Your task to perform on an android device: Find coffee shops on Maps Image 0: 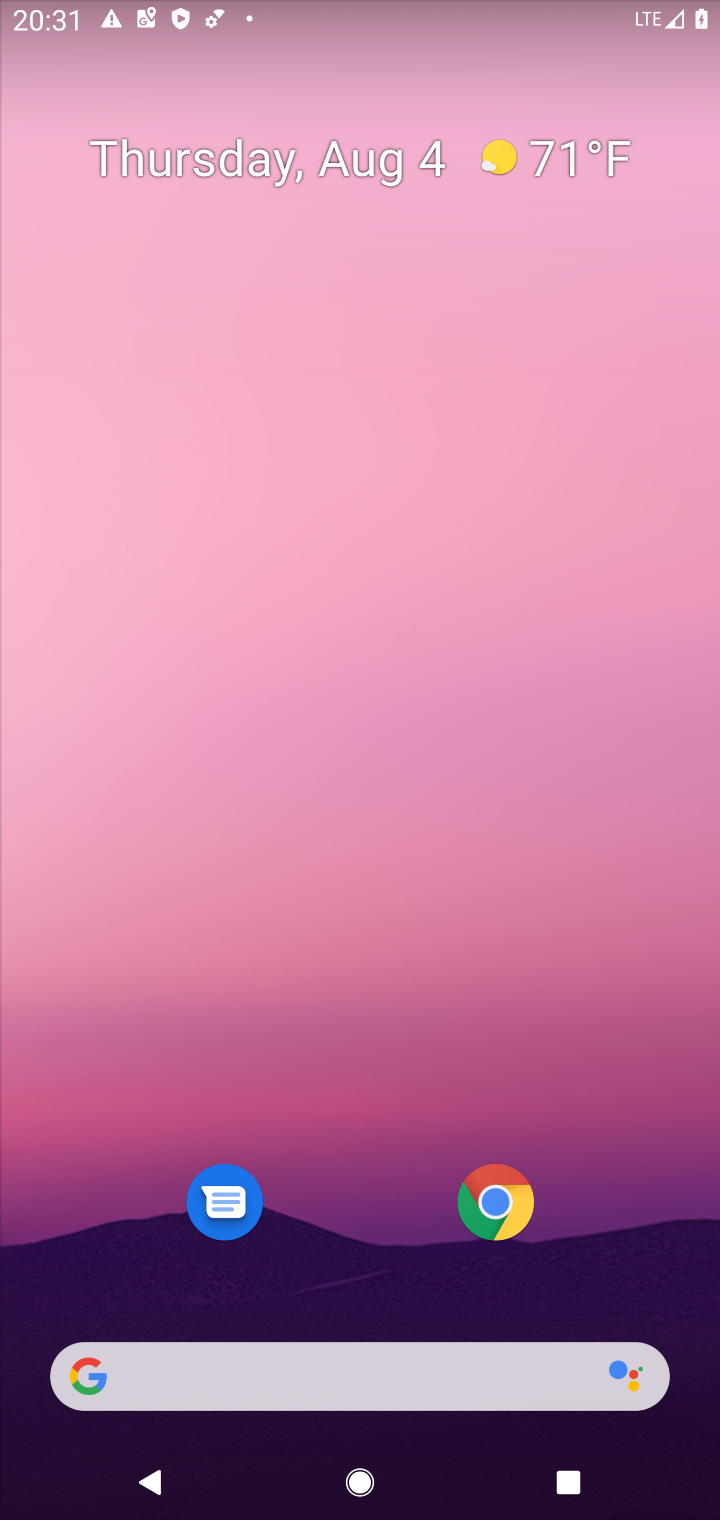
Step 0: drag from (372, 1246) to (307, 370)
Your task to perform on an android device: Find coffee shops on Maps Image 1: 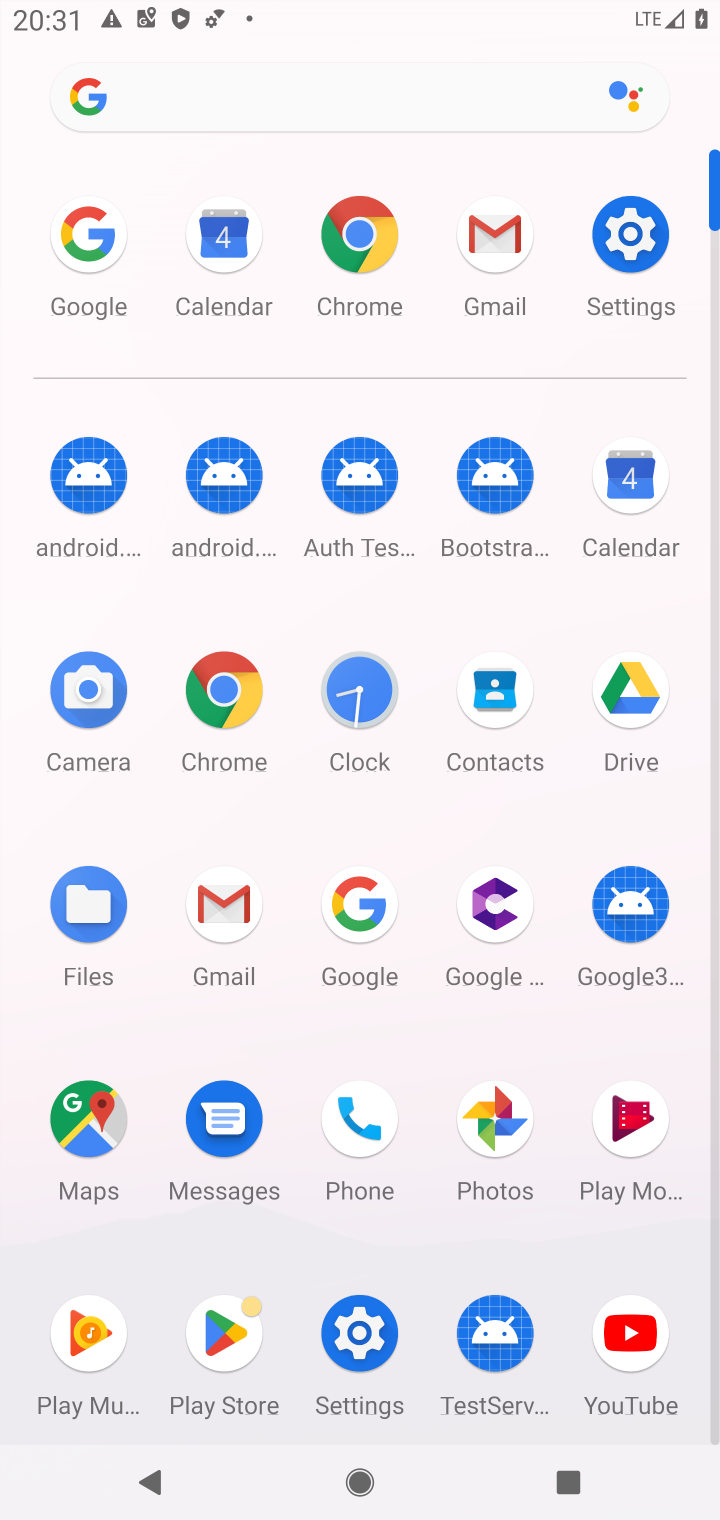
Step 1: click (105, 1176)
Your task to perform on an android device: Find coffee shops on Maps Image 2: 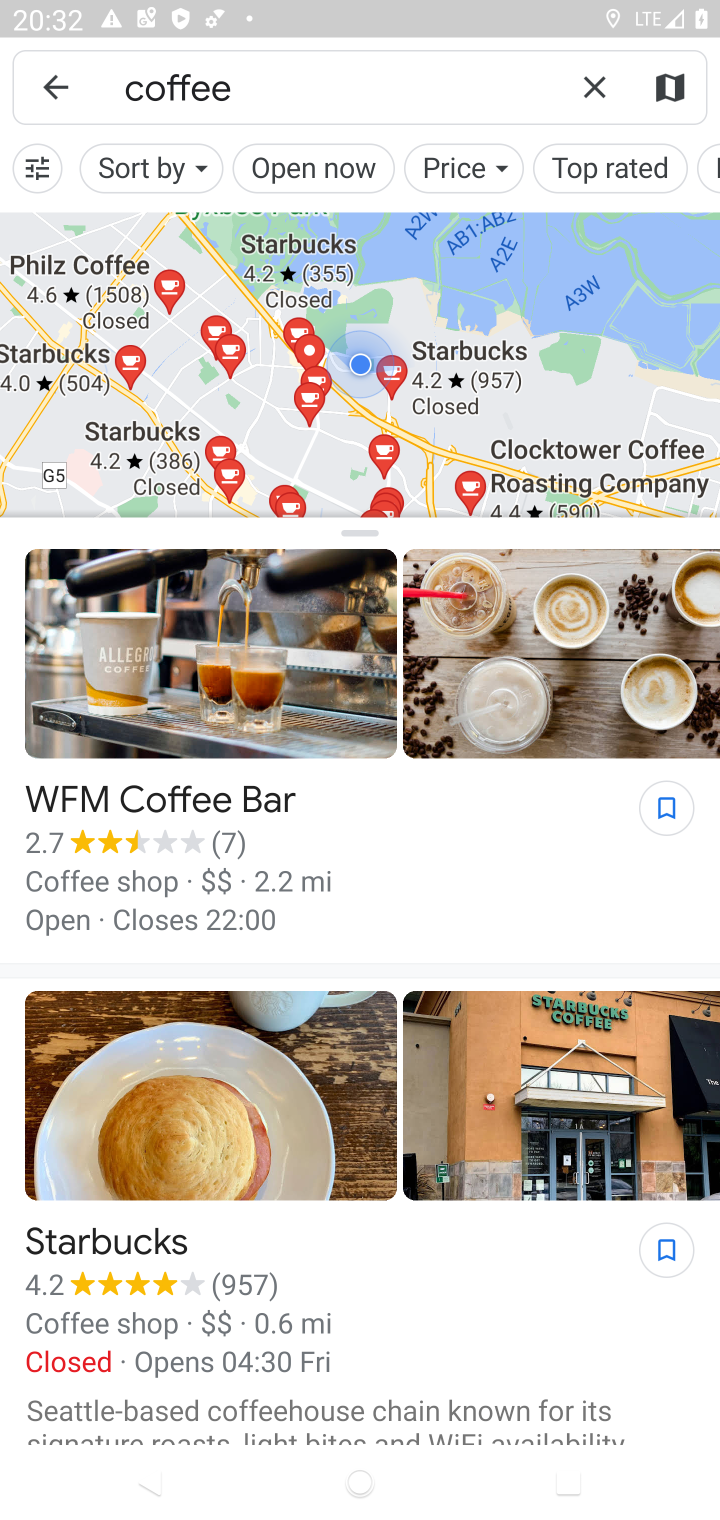
Step 2: task complete